Your task to perform on an android device: install app "Google Play Music" Image 0: 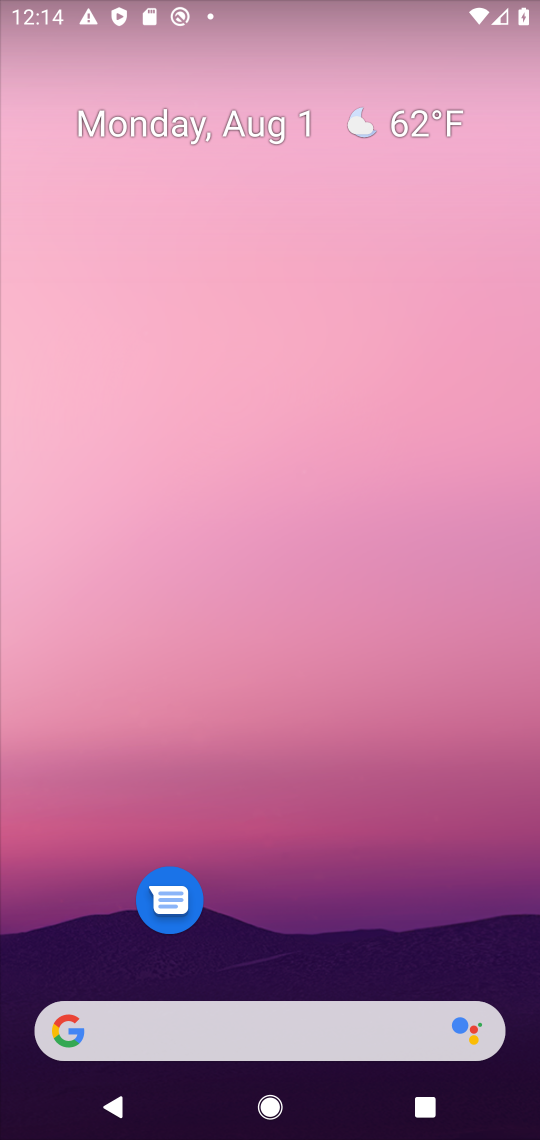
Step 0: drag from (324, 474) to (324, 328)
Your task to perform on an android device: install app "Google Play Music" Image 1: 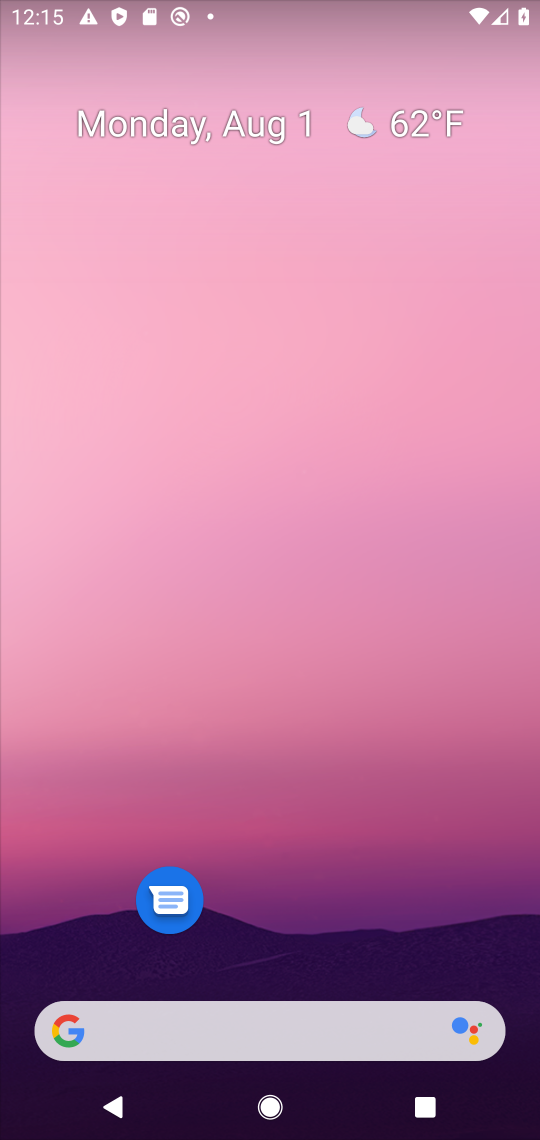
Step 1: drag from (288, 998) to (201, 293)
Your task to perform on an android device: install app "Google Play Music" Image 2: 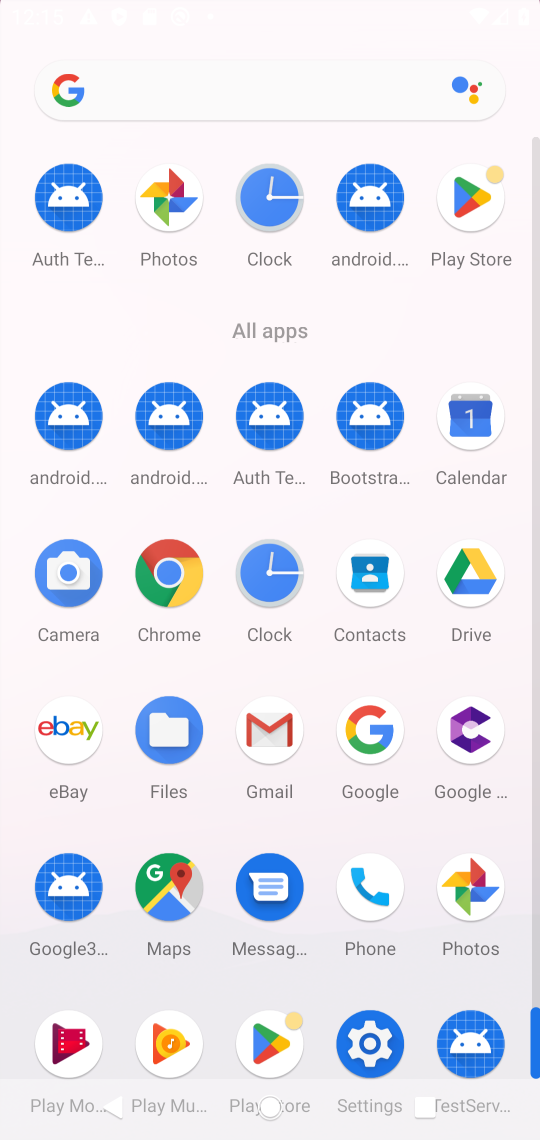
Step 2: click (210, 324)
Your task to perform on an android device: install app "Google Play Music" Image 3: 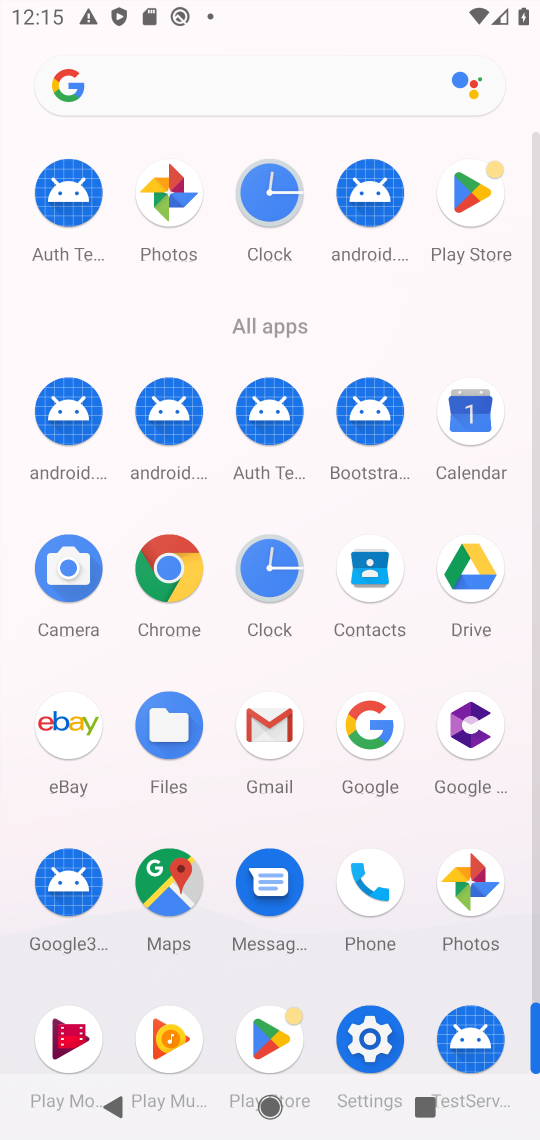
Step 3: click (211, 203)
Your task to perform on an android device: install app "Google Play Music" Image 4: 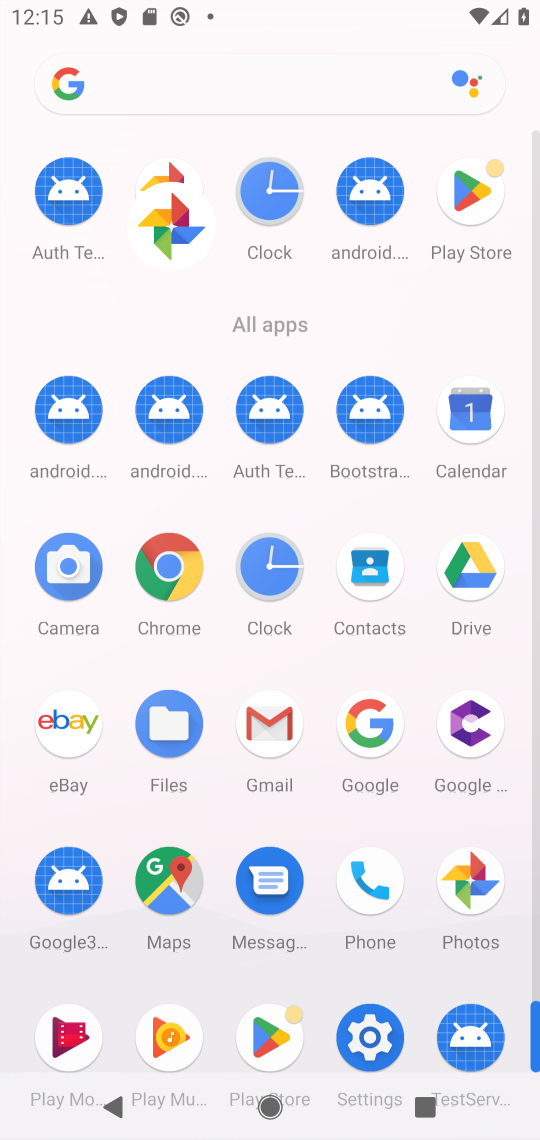
Step 4: drag from (226, 981) to (254, 16)
Your task to perform on an android device: install app "Google Play Music" Image 5: 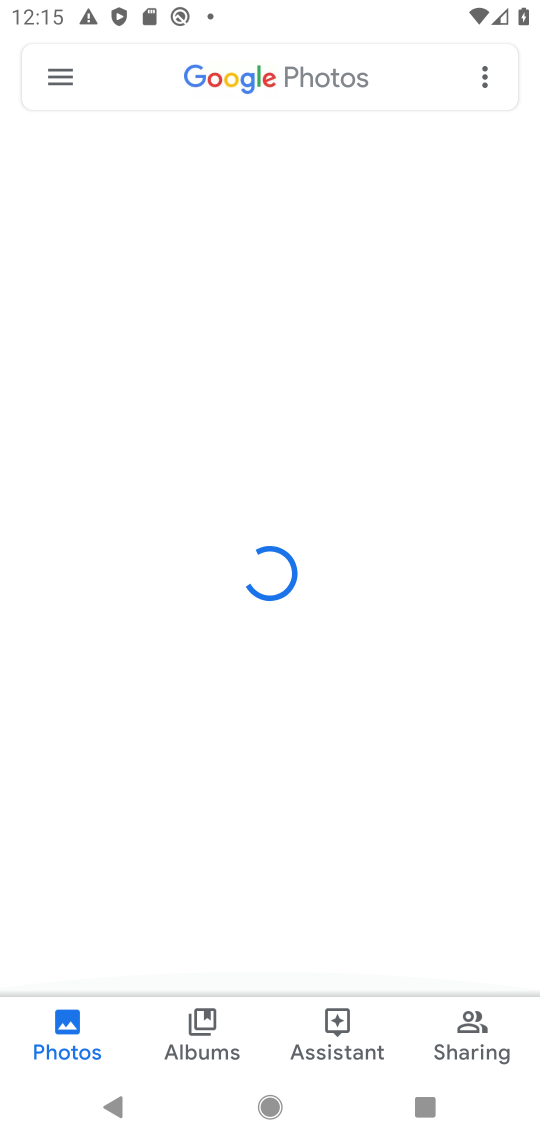
Step 5: press back button
Your task to perform on an android device: install app "Google Play Music" Image 6: 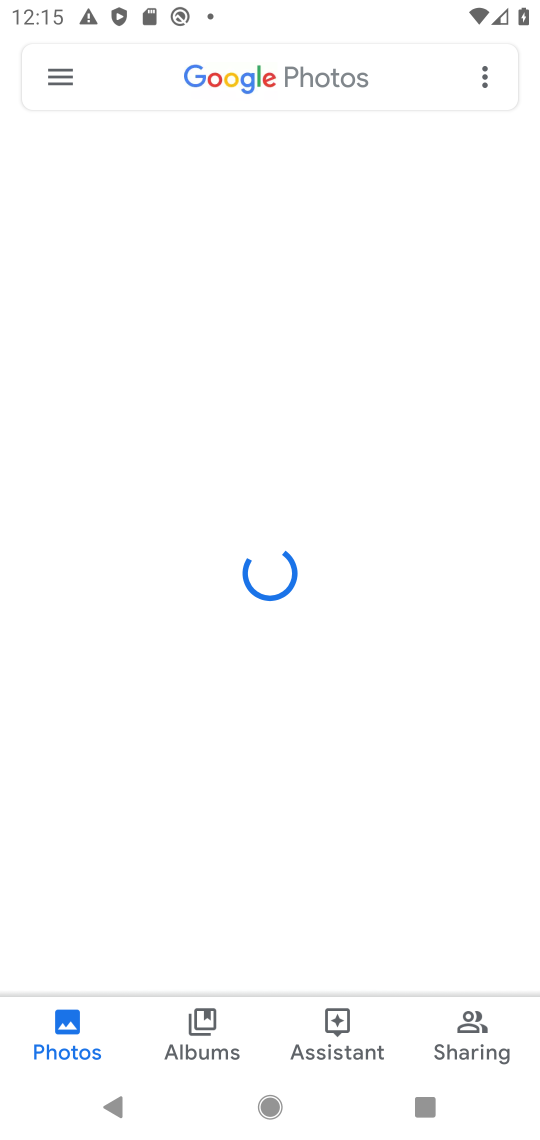
Step 6: click (255, 247)
Your task to perform on an android device: install app "Google Play Music" Image 7: 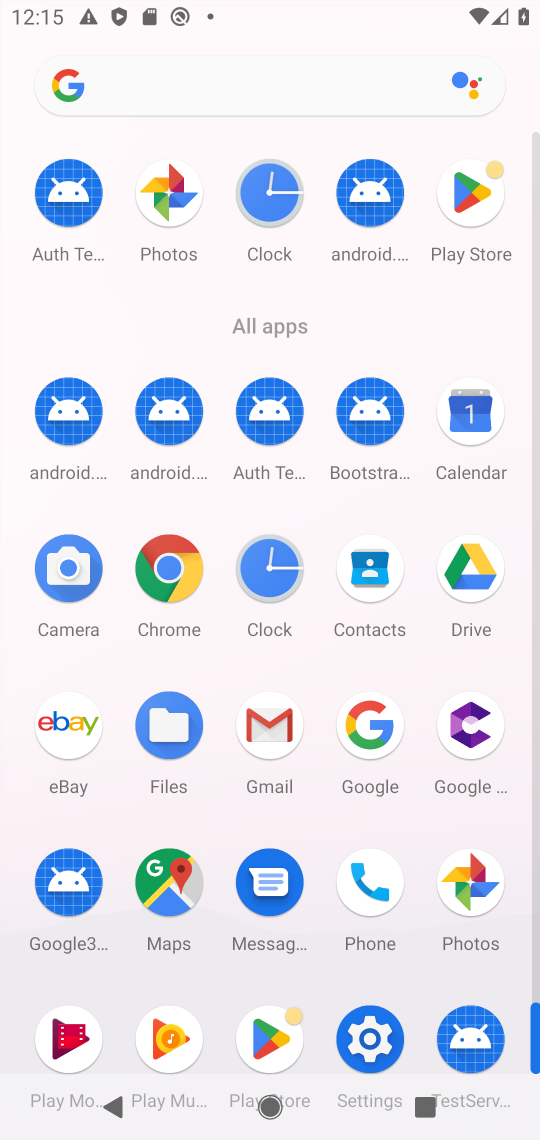
Step 7: press back button
Your task to perform on an android device: install app "Google Play Music" Image 8: 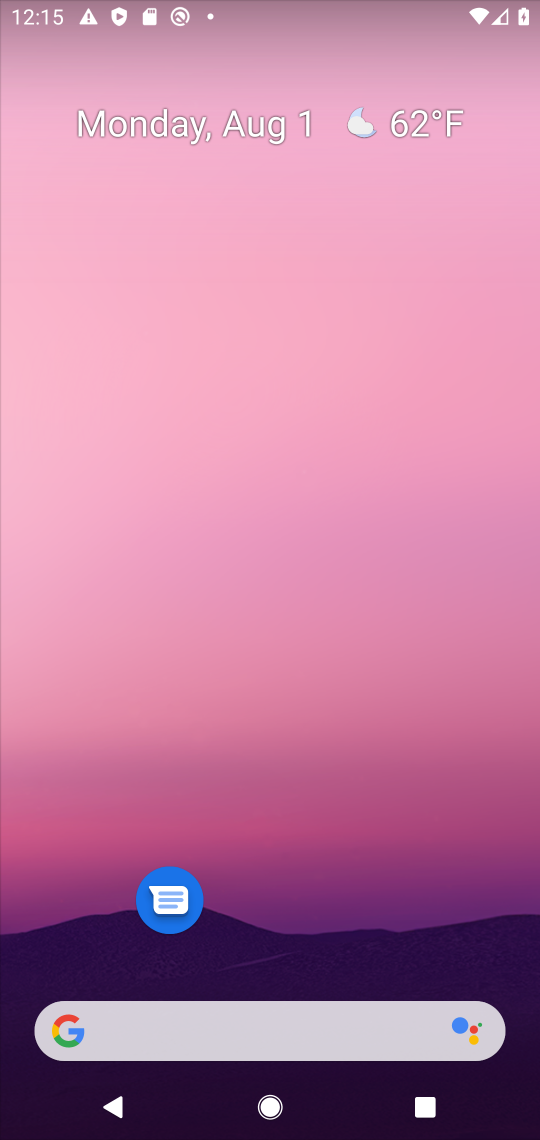
Step 8: click (255, 320)
Your task to perform on an android device: install app "Google Play Music" Image 9: 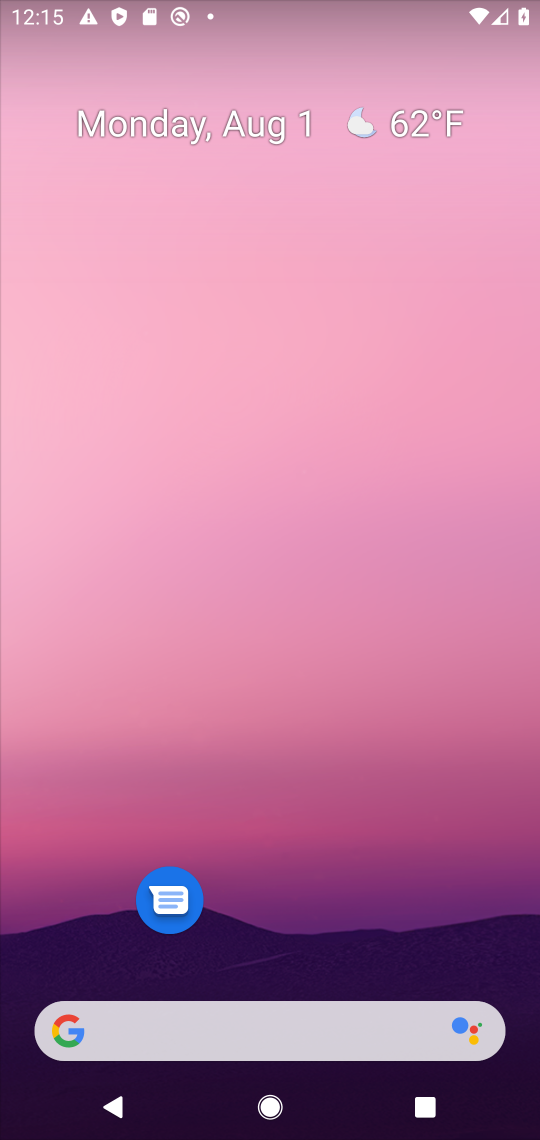
Step 9: press home button
Your task to perform on an android device: install app "Google Play Music" Image 10: 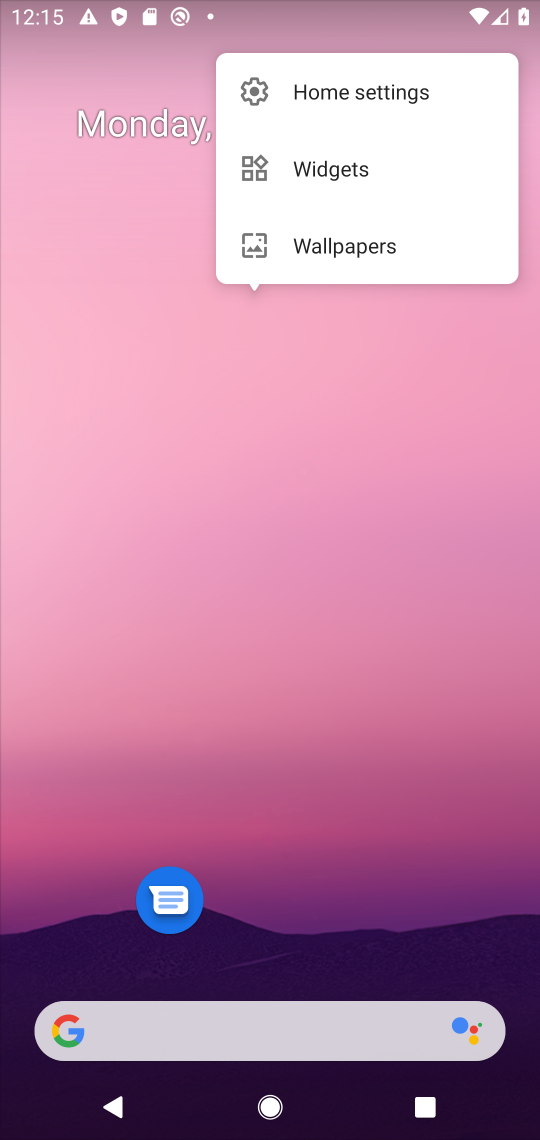
Step 10: drag from (221, 426) to (427, 46)
Your task to perform on an android device: install app "Google Play Music" Image 11: 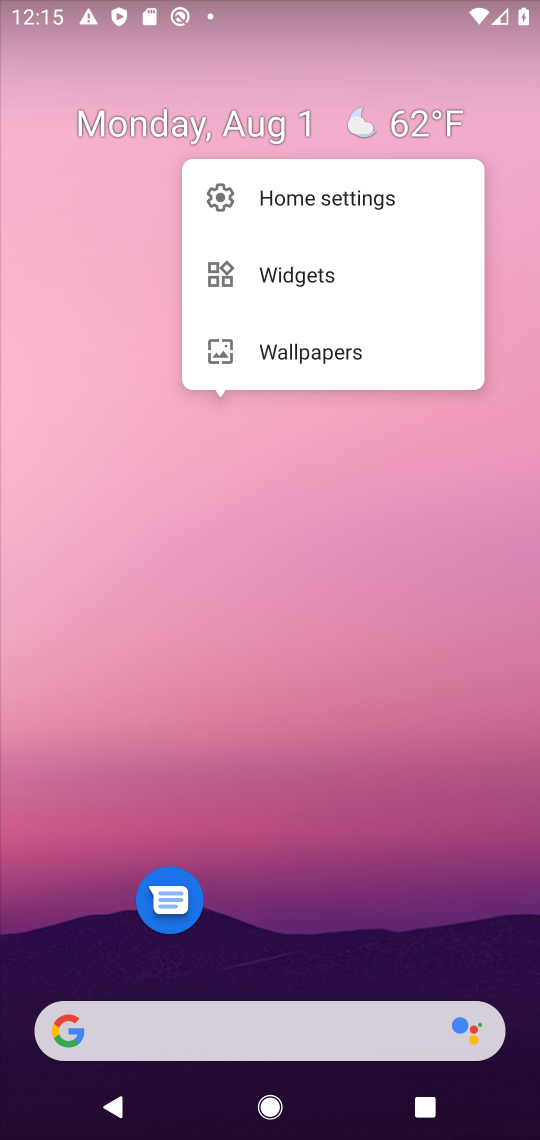
Step 11: click (299, 214)
Your task to perform on an android device: install app "Google Play Music" Image 12: 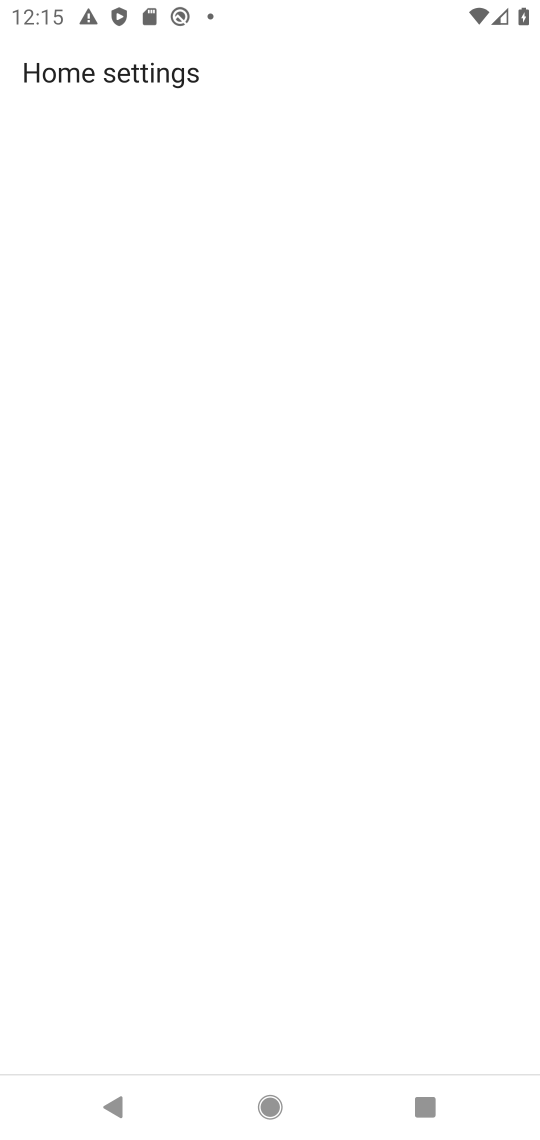
Step 12: click (286, 406)
Your task to perform on an android device: install app "Google Play Music" Image 13: 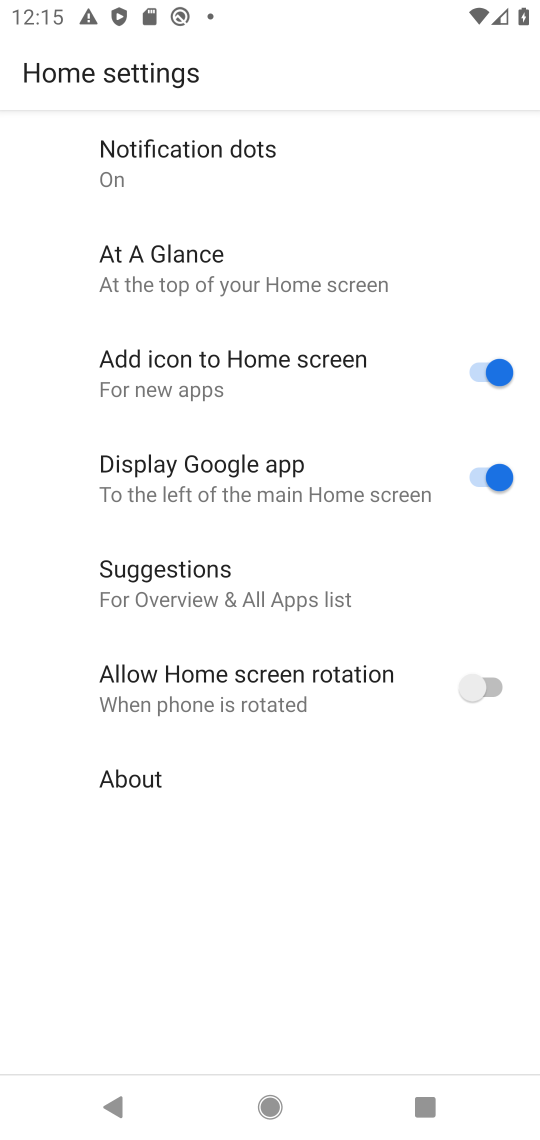
Step 13: click (293, 4)
Your task to perform on an android device: install app "Google Play Music" Image 14: 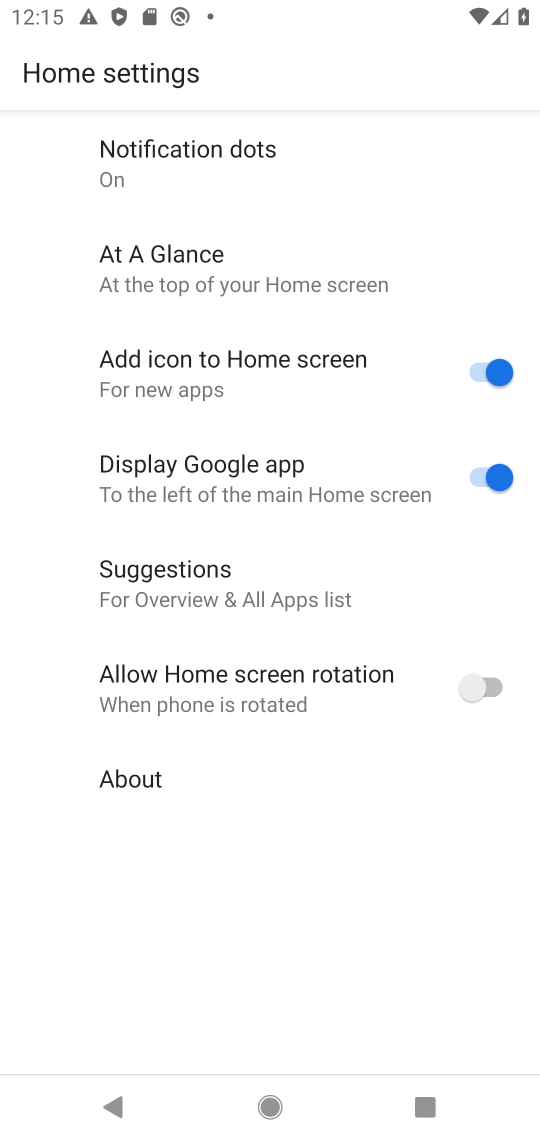
Step 14: drag from (294, 437) to (251, 86)
Your task to perform on an android device: install app "Google Play Music" Image 15: 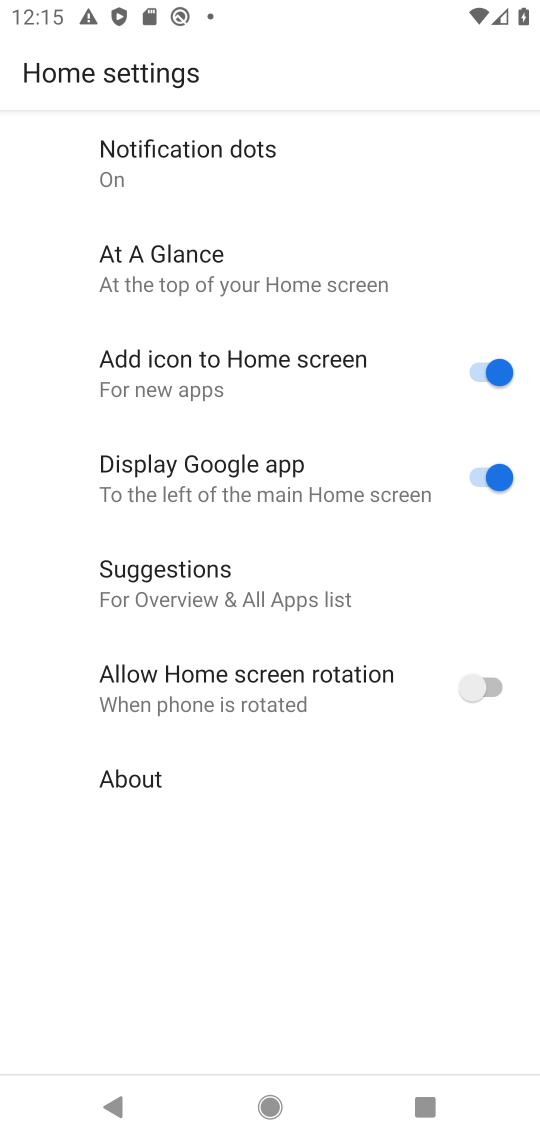
Step 15: drag from (262, 543) to (359, 253)
Your task to perform on an android device: install app "Google Play Music" Image 16: 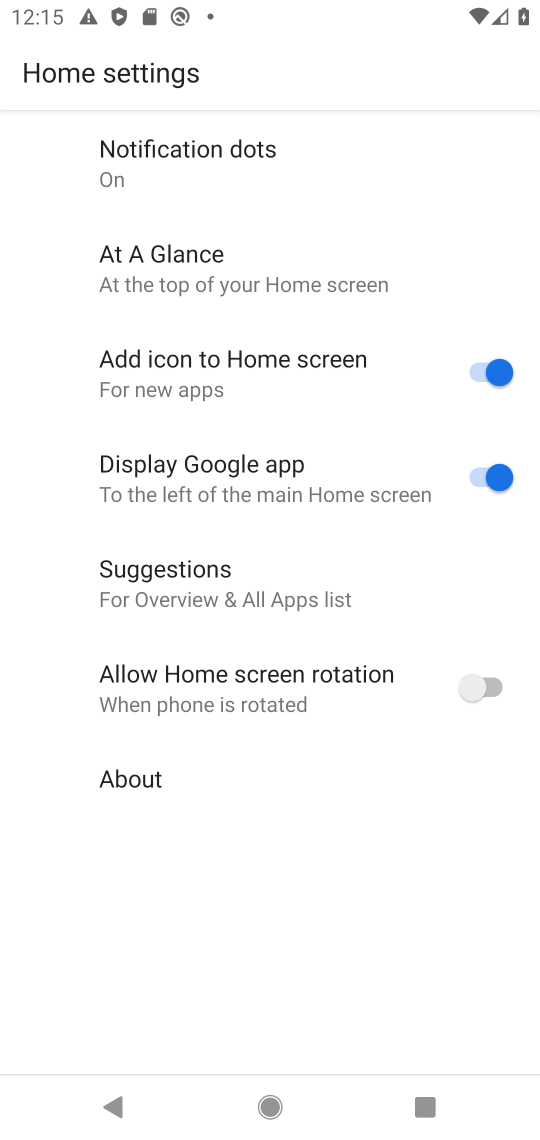
Step 16: press back button
Your task to perform on an android device: install app "Google Play Music" Image 17: 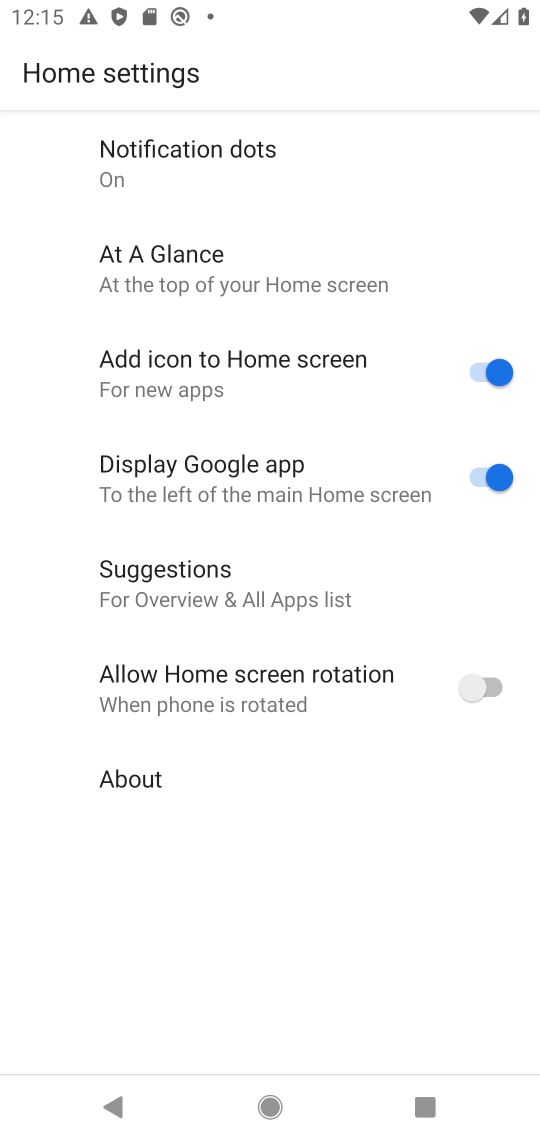
Step 17: press back button
Your task to perform on an android device: install app "Google Play Music" Image 18: 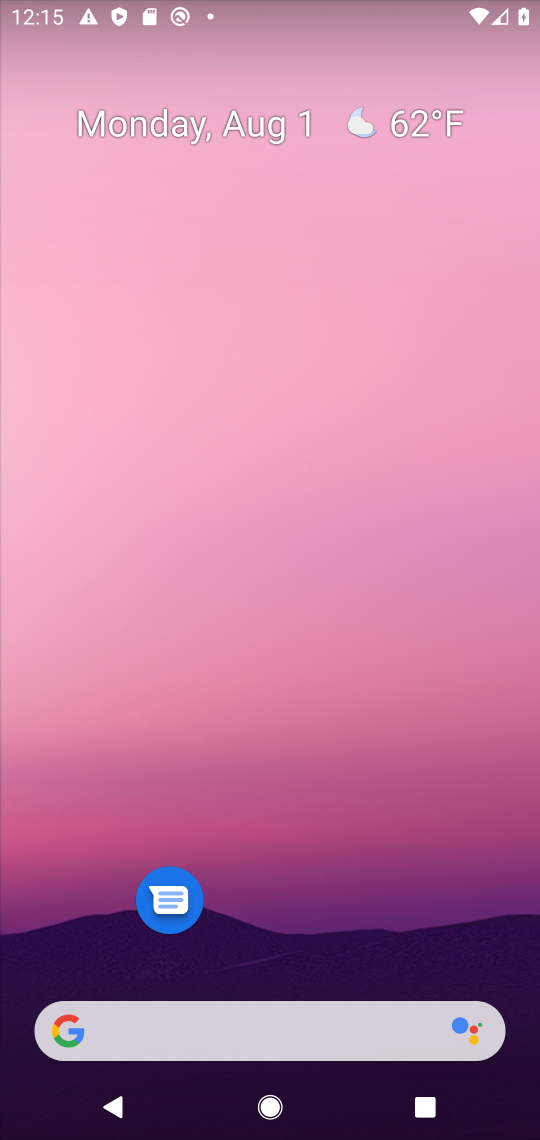
Step 18: drag from (221, 696) to (211, 7)
Your task to perform on an android device: install app "Google Play Music" Image 19: 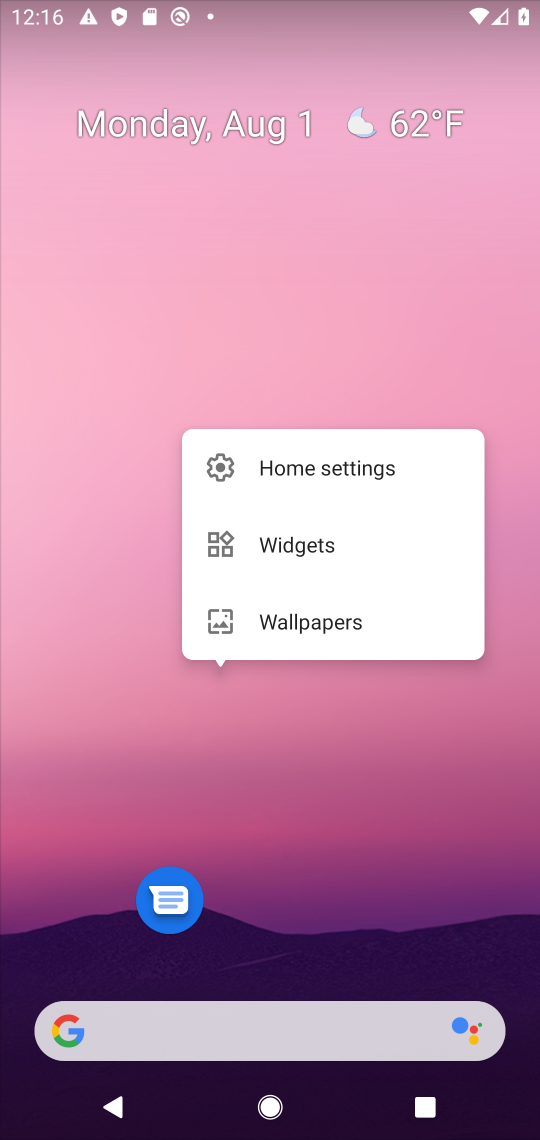
Step 19: click (291, 211)
Your task to perform on an android device: install app "Google Play Music" Image 20: 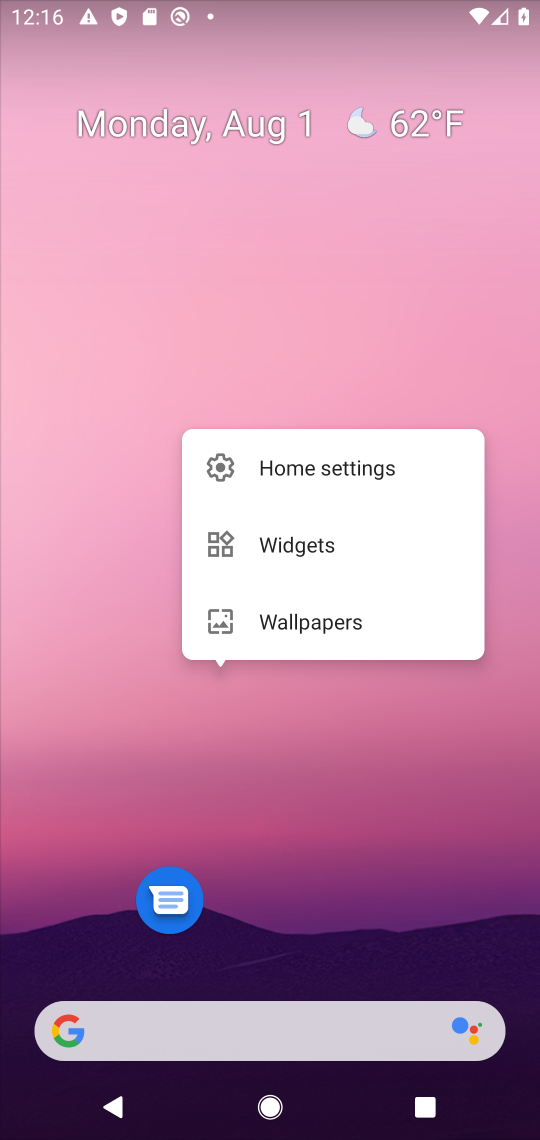
Step 20: drag from (298, 852) to (286, 293)
Your task to perform on an android device: install app "Google Play Music" Image 21: 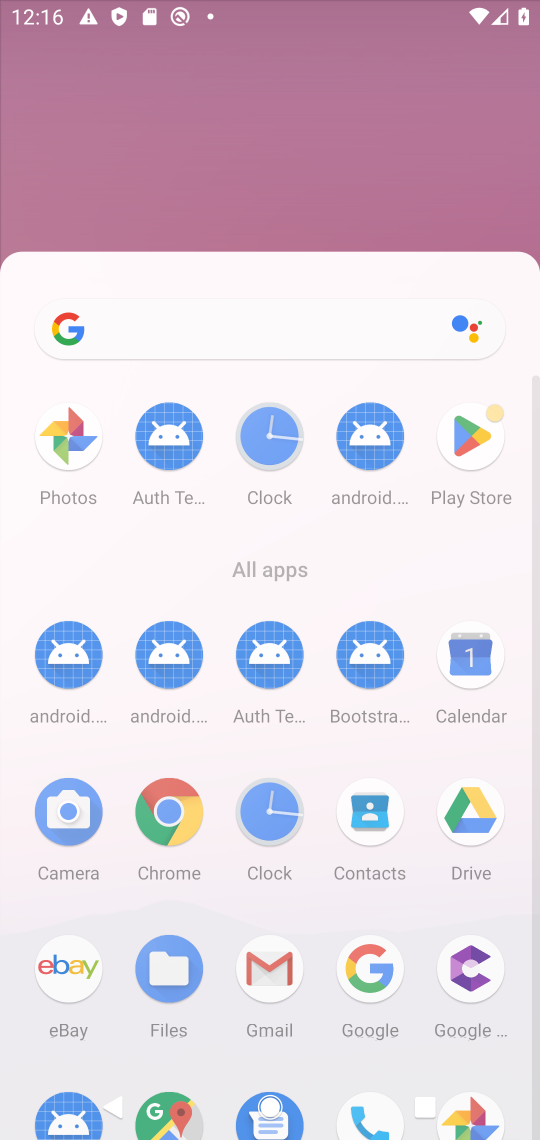
Step 21: drag from (212, 810) to (128, 118)
Your task to perform on an android device: install app "Google Play Music" Image 22: 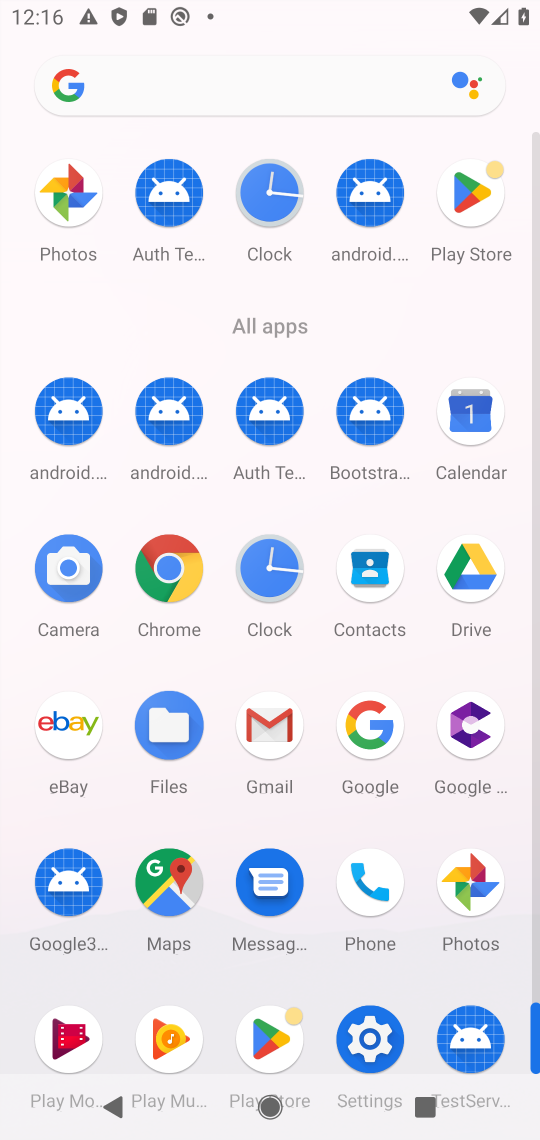
Step 22: drag from (164, 901) to (264, 189)
Your task to perform on an android device: install app "Google Play Music" Image 23: 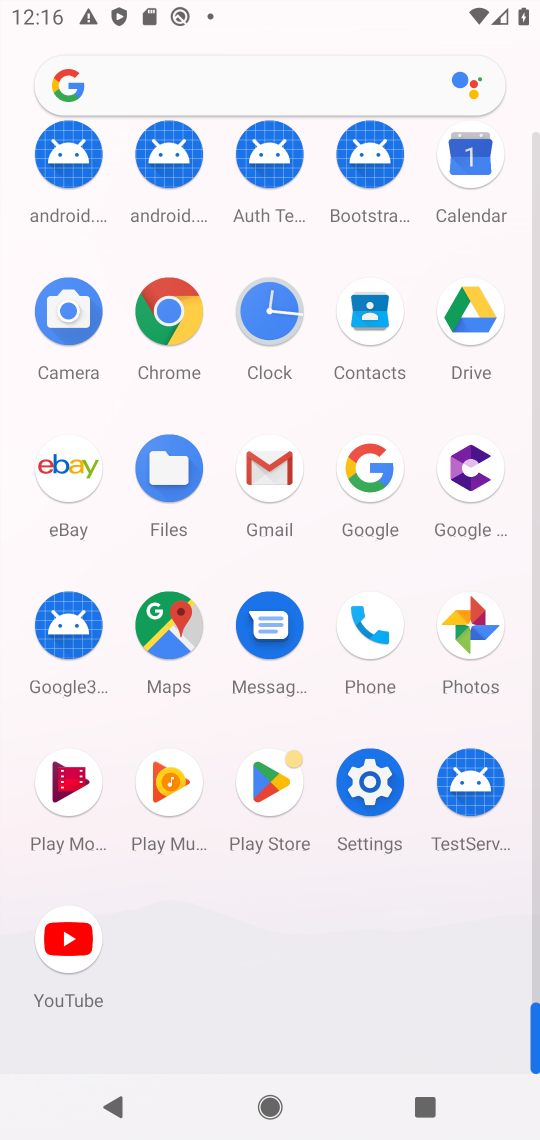
Step 23: click (244, 44)
Your task to perform on an android device: install app "Google Play Music" Image 24: 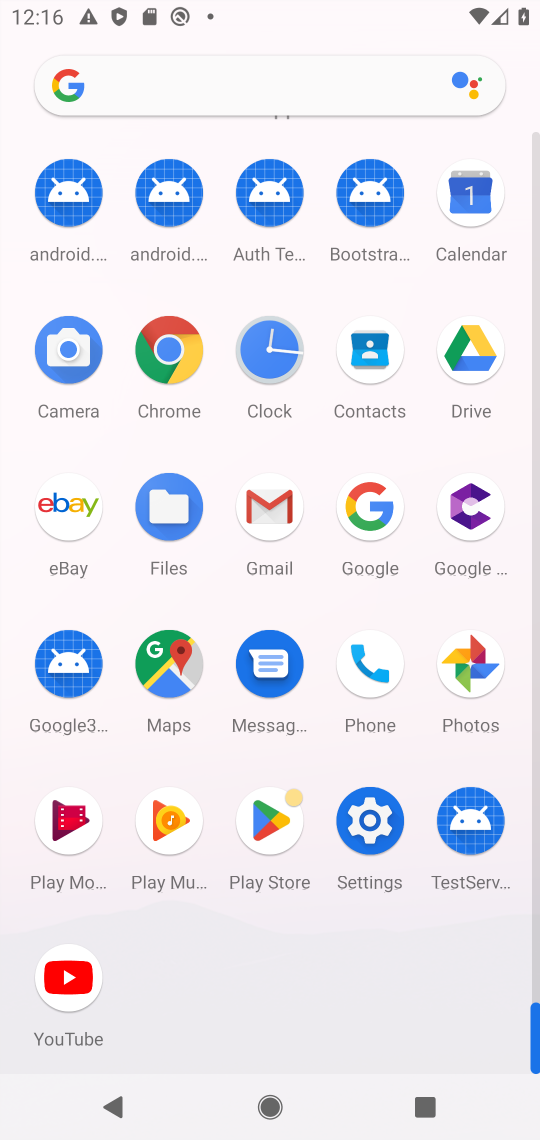
Step 24: drag from (231, 597) to (168, 142)
Your task to perform on an android device: install app "Google Play Music" Image 25: 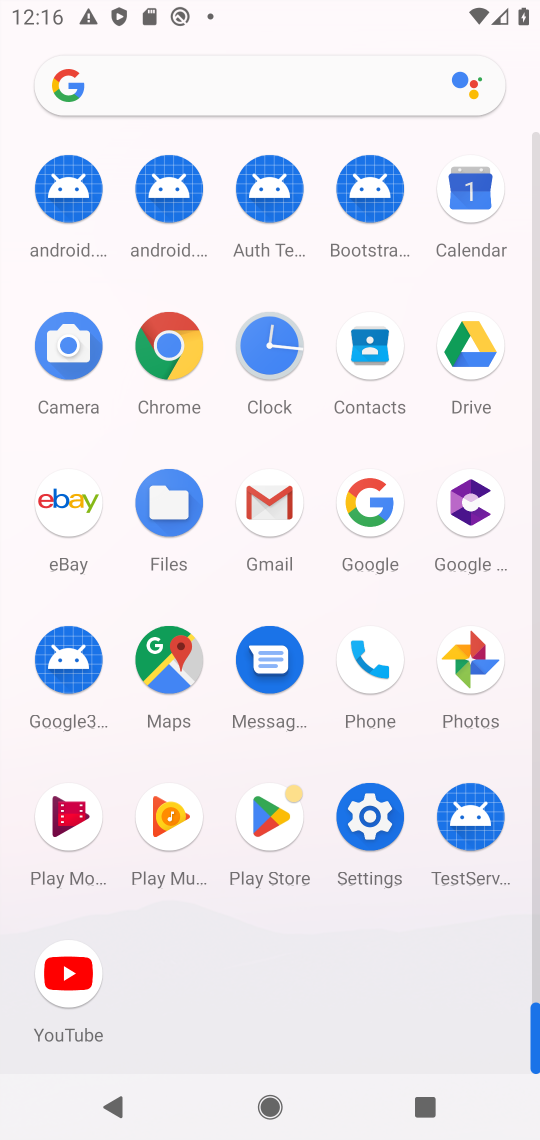
Step 25: drag from (213, 180) to (216, 122)
Your task to perform on an android device: install app "Google Play Music" Image 26: 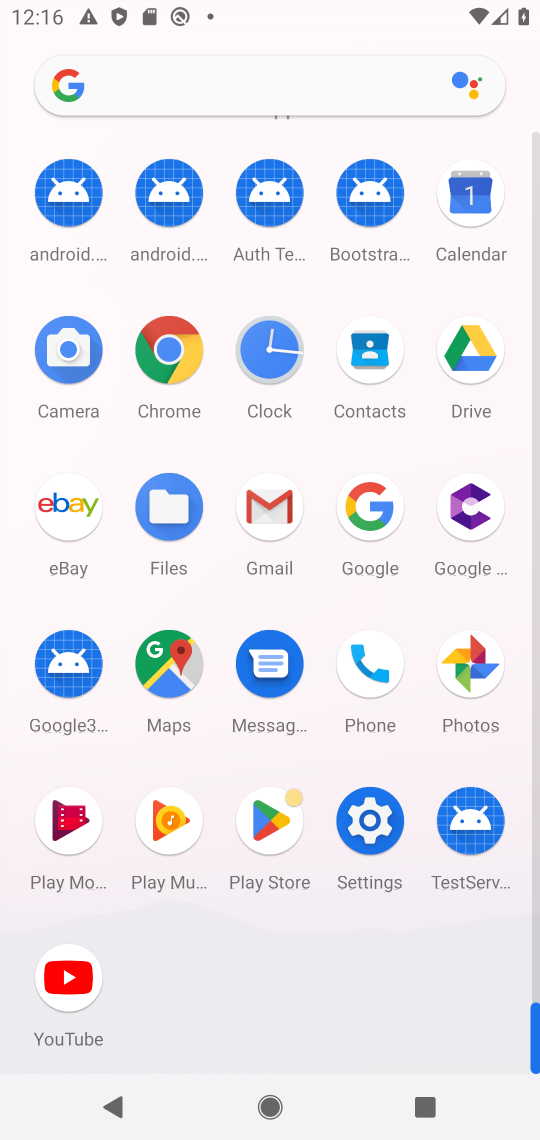
Step 26: click (345, 245)
Your task to perform on an android device: install app "Google Play Music" Image 27: 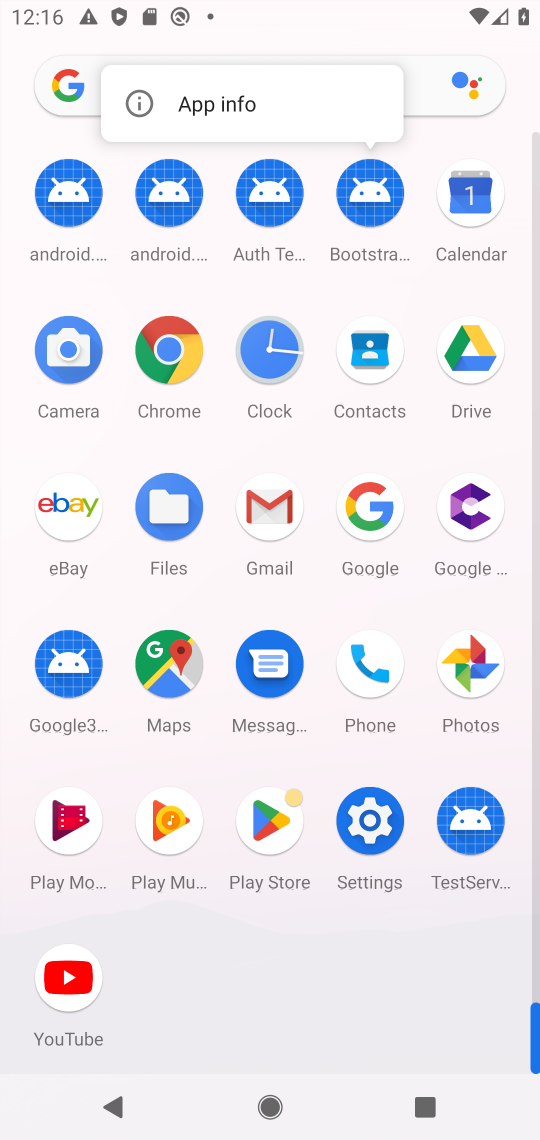
Step 27: click (273, 835)
Your task to perform on an android device: install app "Google Play Music" Image 28: 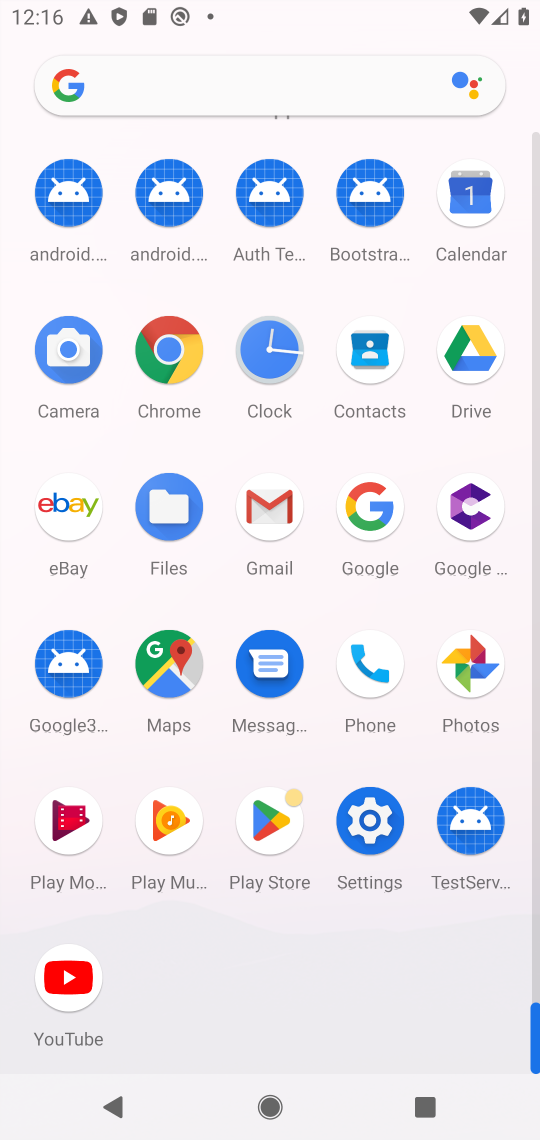
Step 28: click (278, 831)
Your task to perform on an android device: install app "Google Play Music" Image 29: 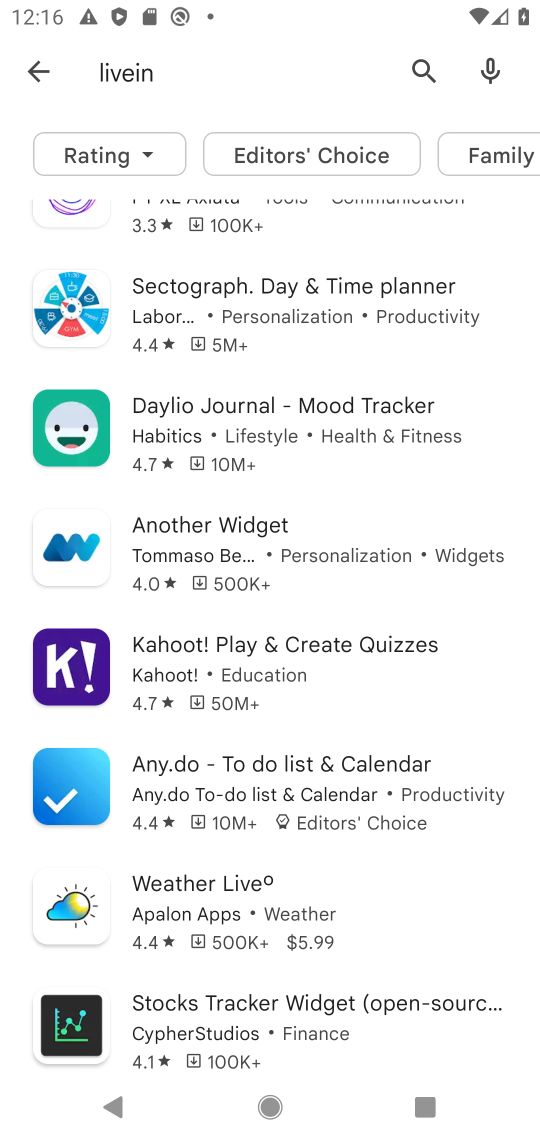
Step 29: click (290, 812)
Your task to perform on an android device: install app "Google Play Music" Image 30: 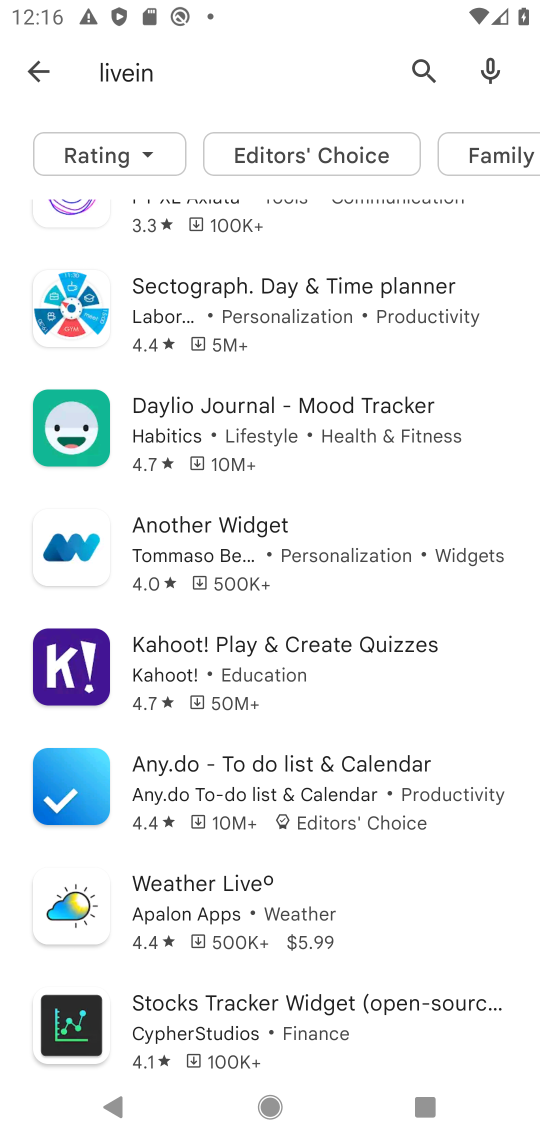
Step 30: click (290, 817)
Your task to perform on an android device: install app "Google Play Music" Image 31: 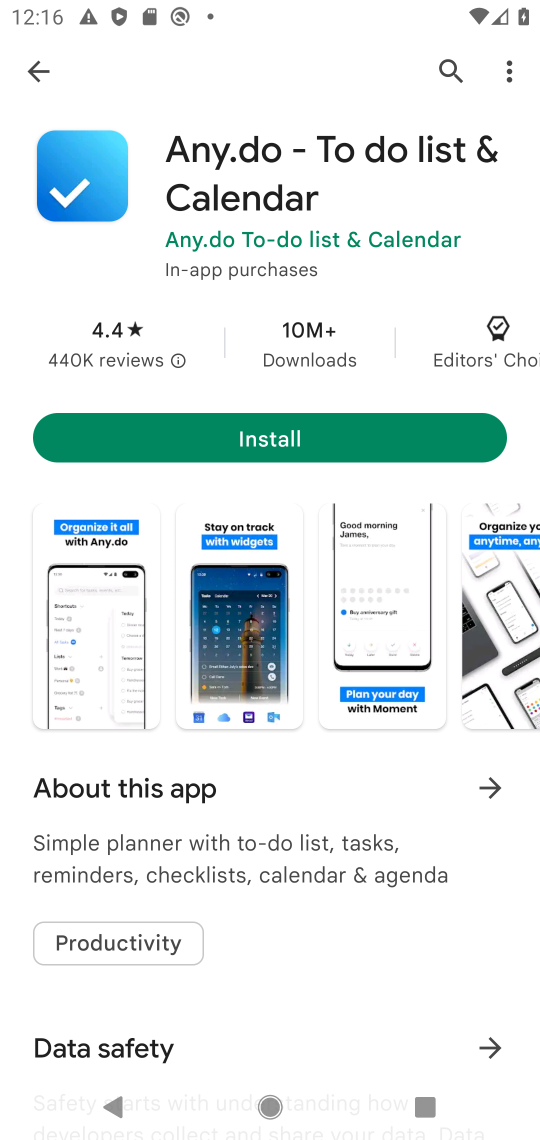
Step 31: click (5, 45)
Your task to perform on an android device: install app "Google Play Music" Image 32: 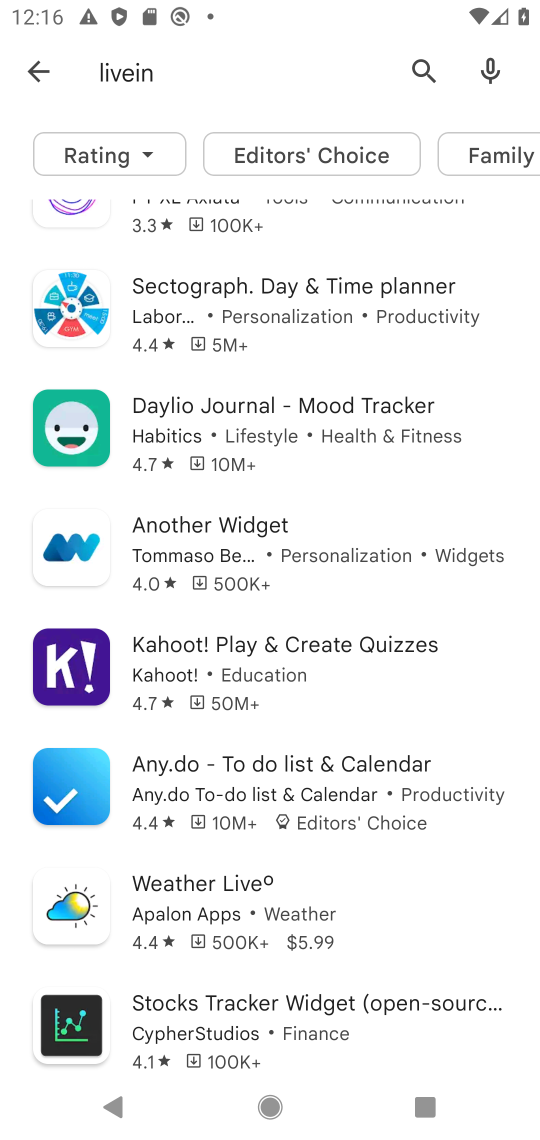
Step 32: click (27, 62)
Your task to perform on an android device: install app "Google Play Music" Image 33: 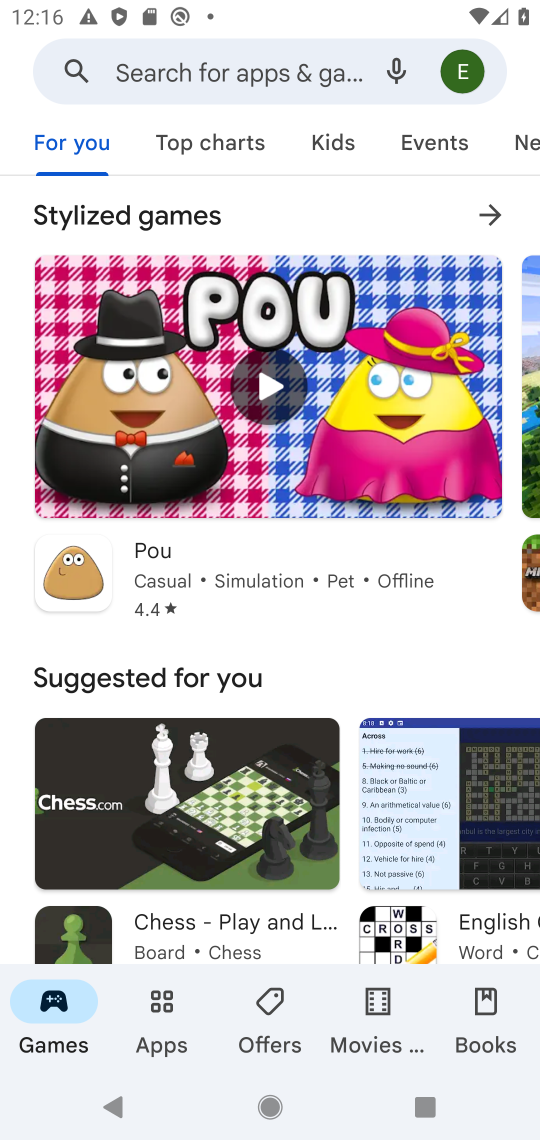
Step 33: click (42, 61)
Your task to perform on an android device: install app "Google Play Music" Image 34: 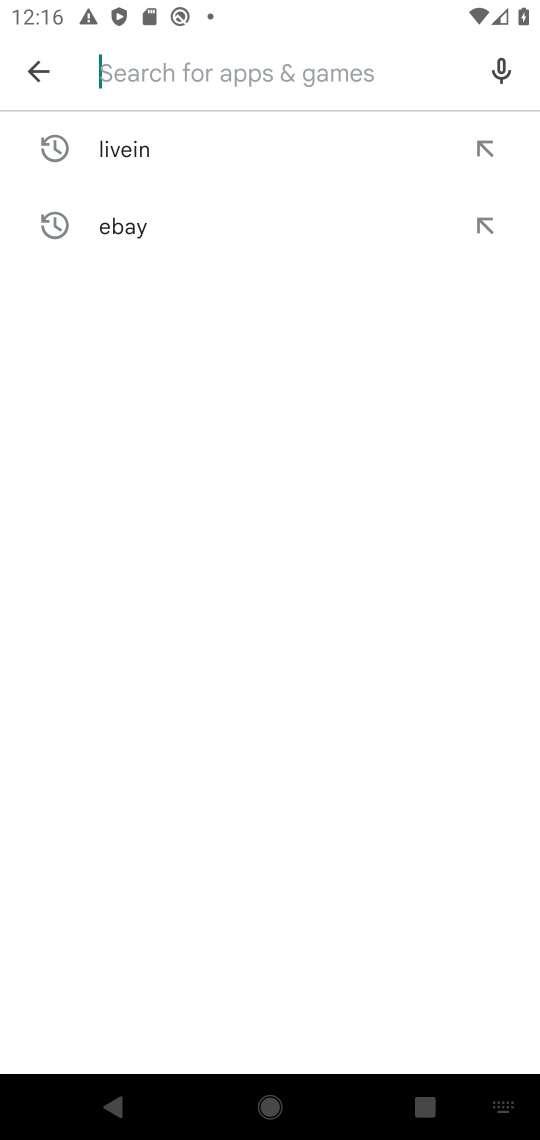
Step 34: click (53, 73)
Your task to perform on an android device: install app "Google Play Music" Image 35: 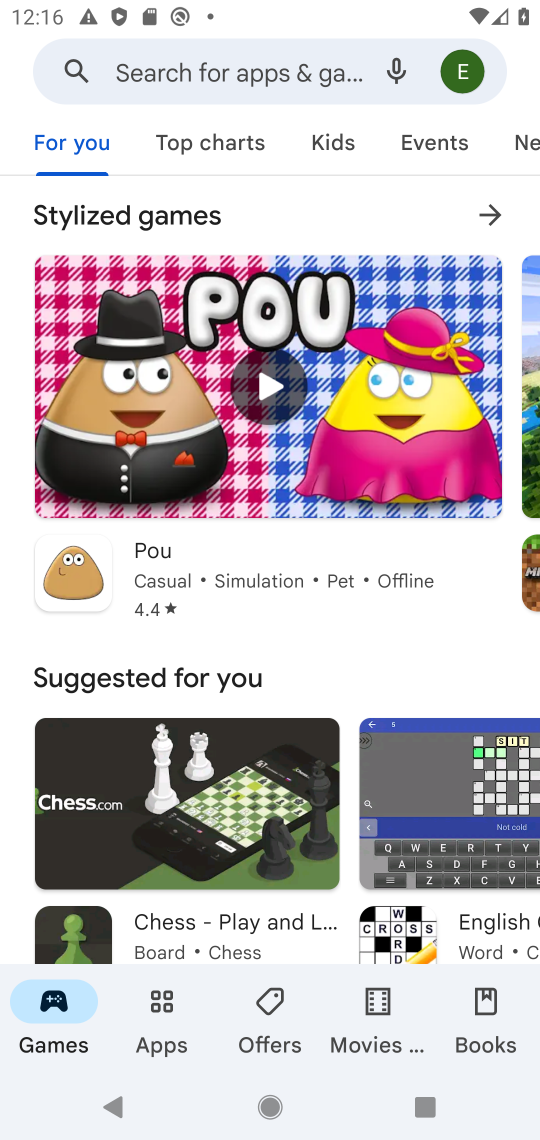
Step 35: click (182, 94)
Your task to perform on an android device: install app "Google Play Music" Image 36: 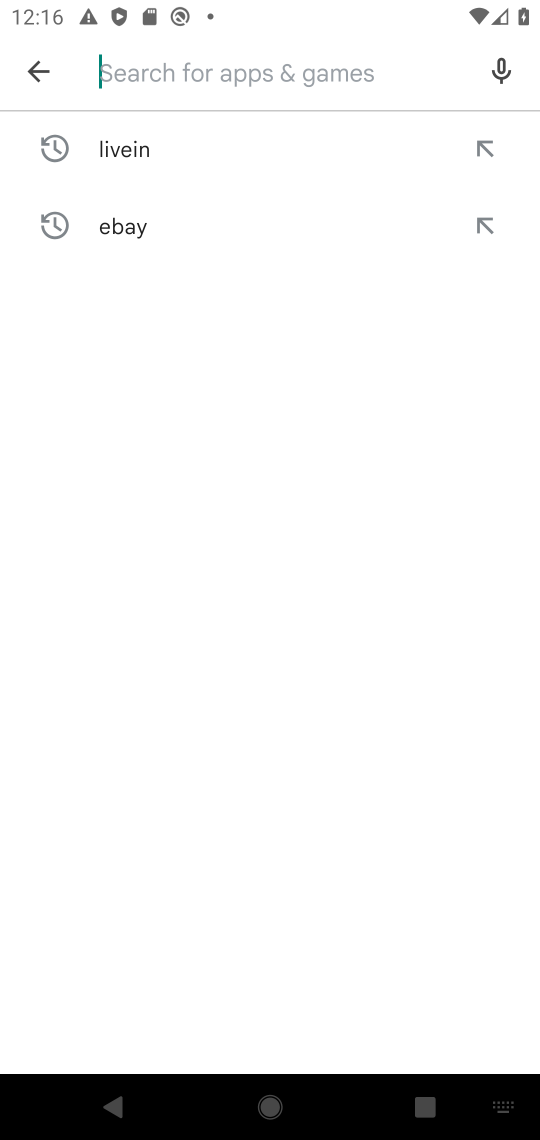
Step 36: type "Google Play Music"
Your task to perform on an android device: install app "Google Play Music" Image 37: 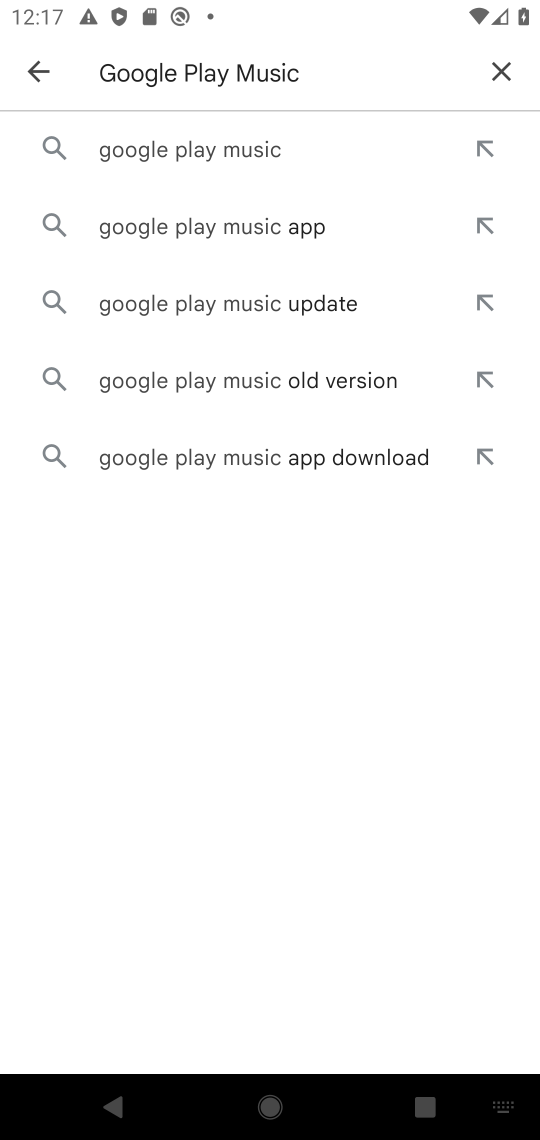
Step 37: click (213, 147)
Your task to perform on an android device: install app "Google Play Music" Image 38: 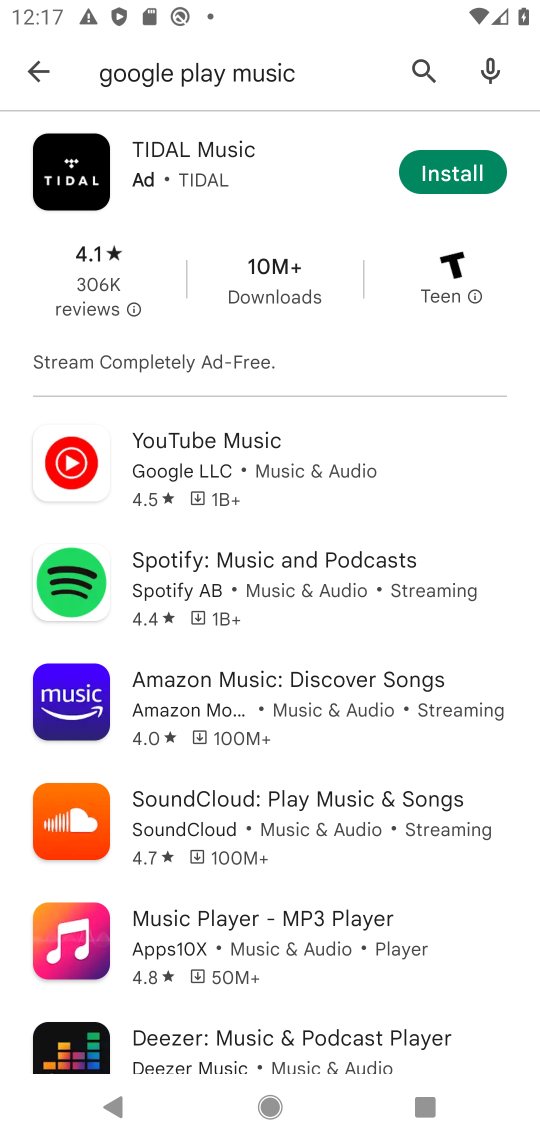
Step 38: task complete